Your task to perform on an android device: When is my next meeting? Image 0: 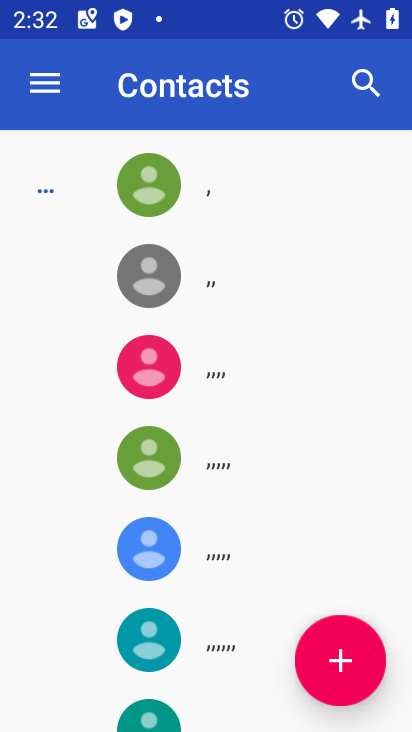
Step 0: press home button
Your task to perform on an android device: When is my next meeting? Image 1: 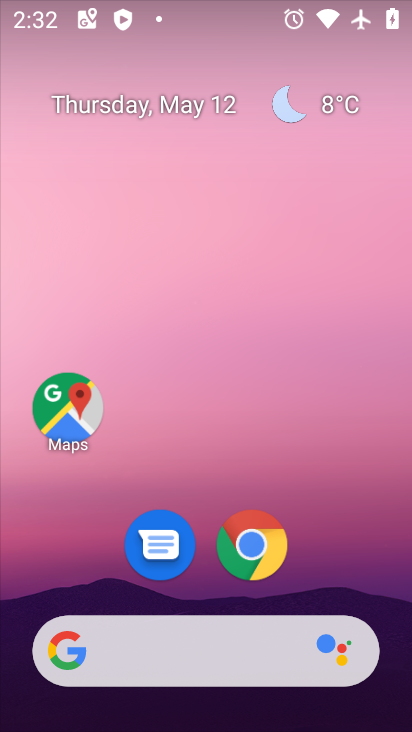
Step 1: drag from (386, 616) to (230, 0)
Your task to perform on an android device: When is my next meeting? Image 2: 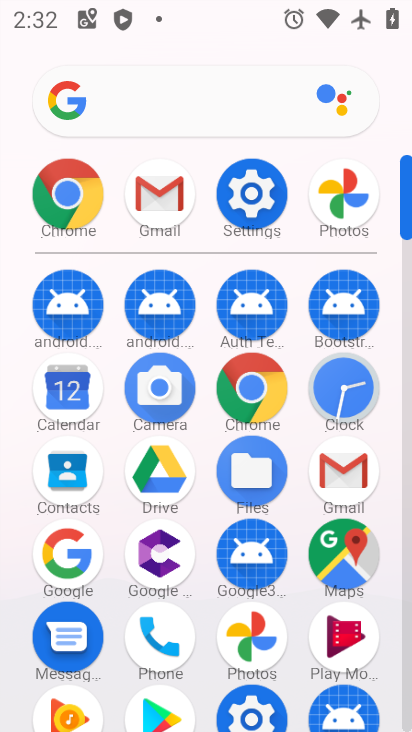
Step 2: click (61, 384)
Your task to perform on an android device: When is my next meeting? Image 3: 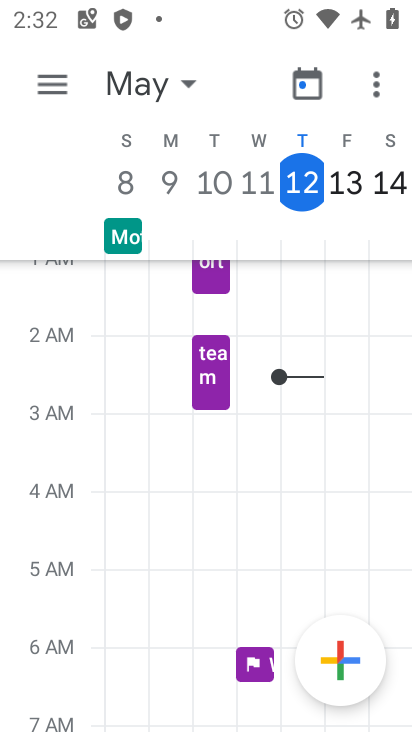
Step 3: click (48, 80)
Your task to perform on an android device: When is my next meeting? Image 4: 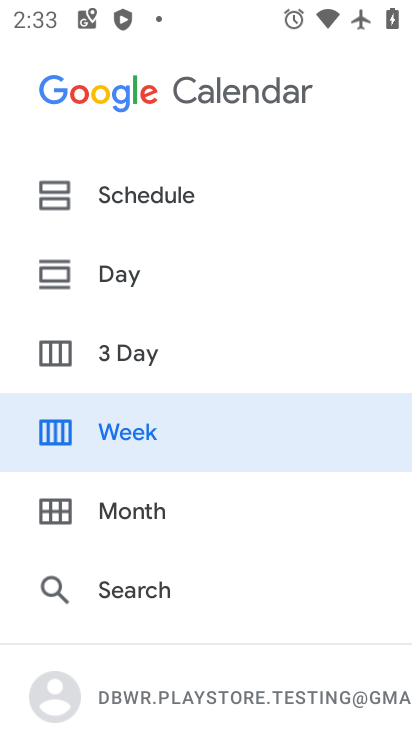
Step 4: click (162, 191)
Your task to perform on an android device: When is my next meeting? Image 5: 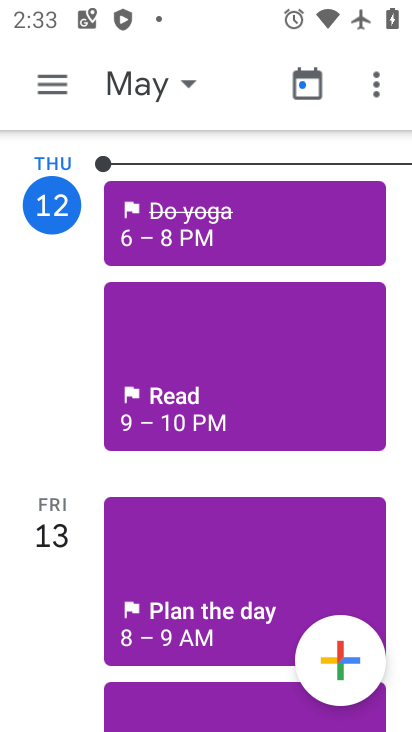
Step 5: task complete